Your task to perform on an android device: Open settings Image 0: 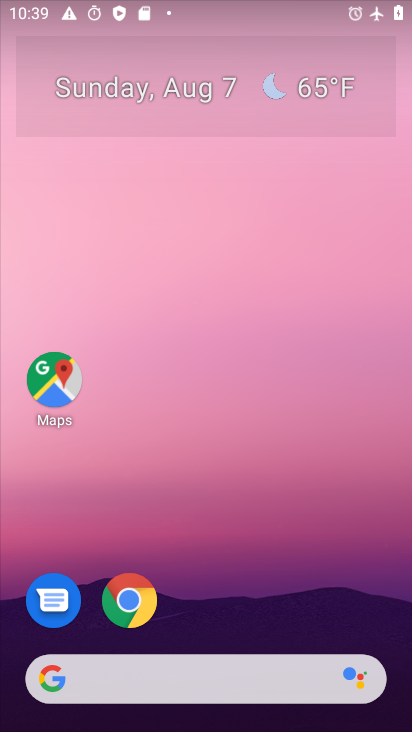
Step 0: drag from (173, 601) to (242, 228)
Your task to perform on an android device: Open settings Image 1: 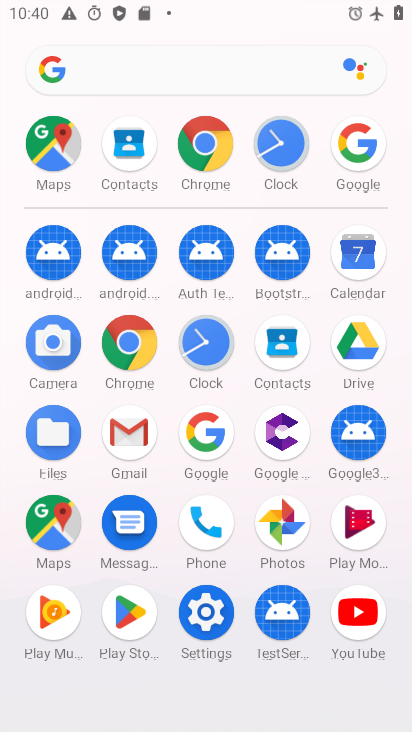
Step 1: click (204, 622)
Your task to perform on an android device: Open settings Image 2: 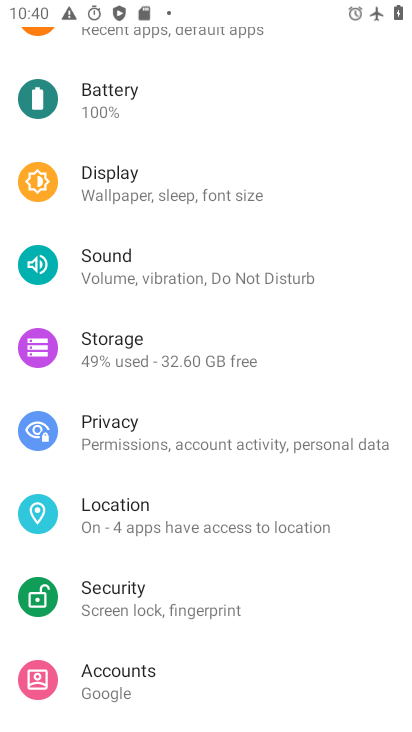
Step 2: task complete